Your task to perform on an android device: Go to sound settings Image 0: 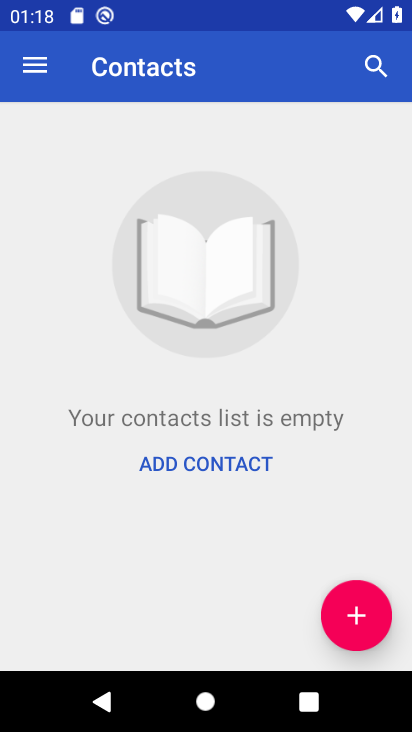
Step 0: press home button
Your task to perform on an android device: Go to sound settings Image 1: 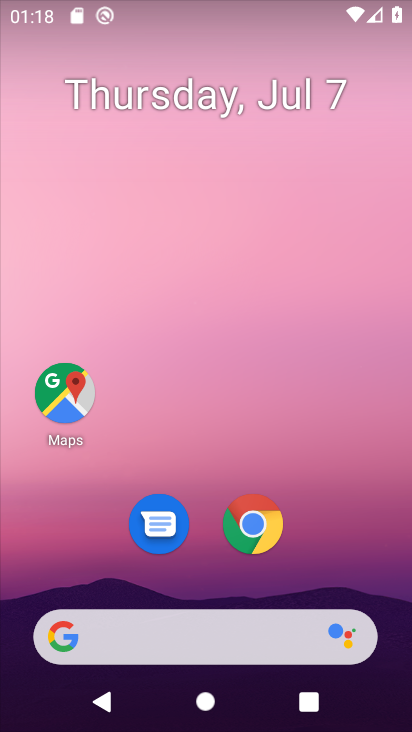
Step 1: drag from (320, 525) to (275, 50)
Your task to perform on an android device: Go to sound settings Image 2: 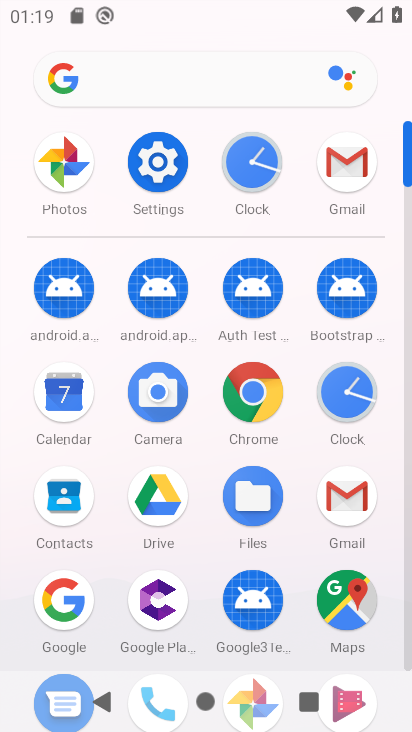
Step 2: click (166, 160)
Your task to perform on an android device: Go to sound settings Image 3: 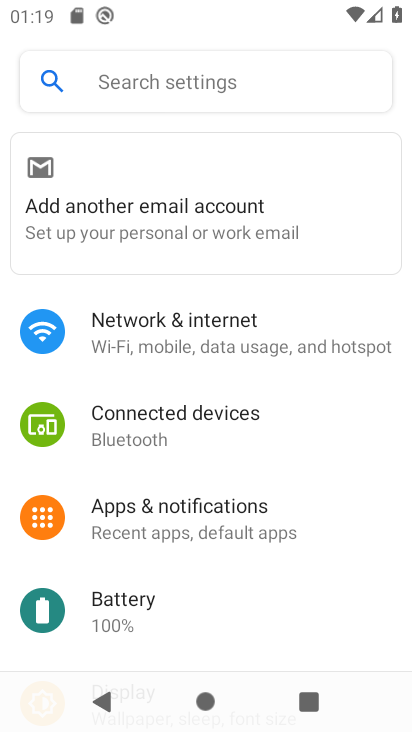
Step 3: drag from (217, 462) to (237, 161)
Your task to perform on an android device: Go to sound settings Image 4: 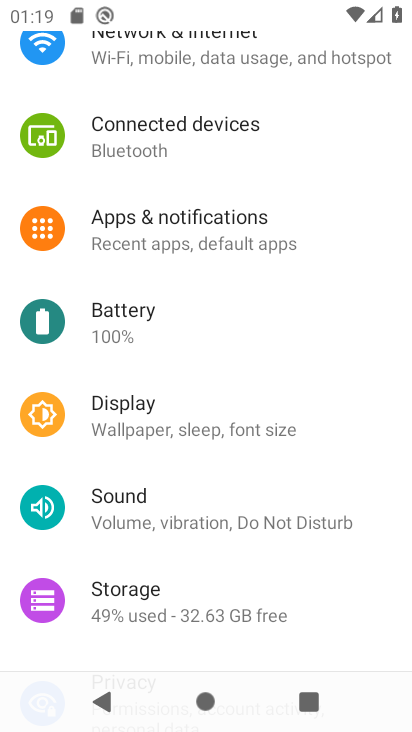
Step 4: click (203, 513)
Your task to perform on an android device: Go to sound settings Image 5: 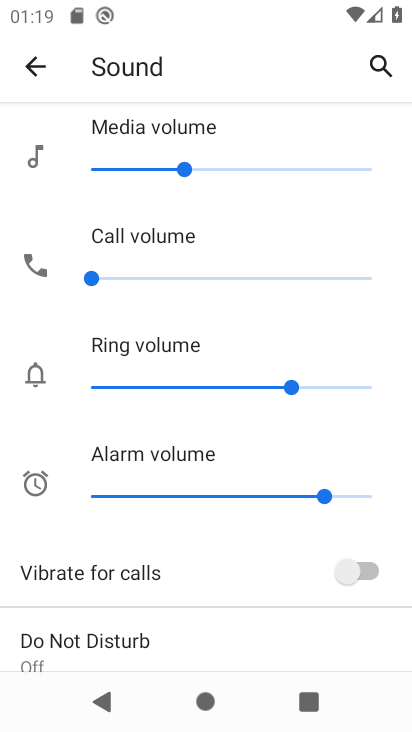
Step 5: task complete